Your task to perform on an android device: Go to Amazon Image 0: 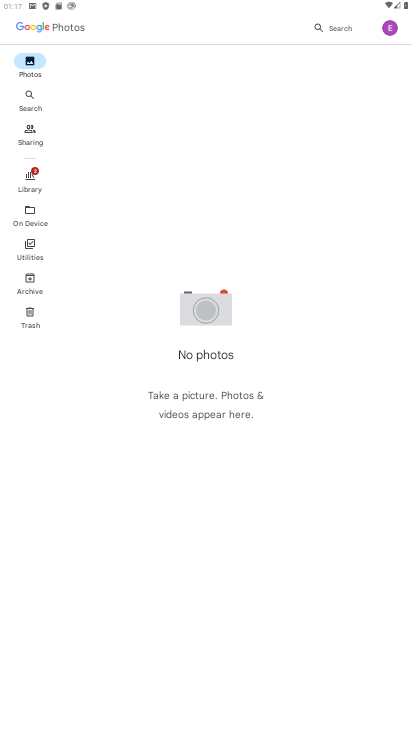
Step 0: press home button
Your task to perform on an android device: Go to Amazon Image 1: 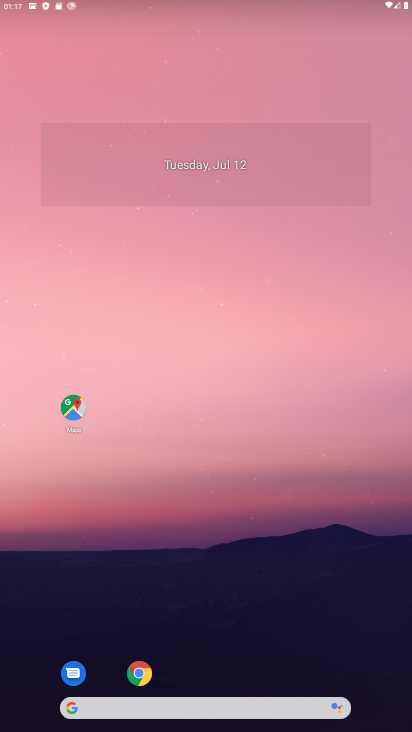
Step 1: drag from (261, 619) to (242, 9)
Your task to perform on an android device: Go to Amazon Image 2: 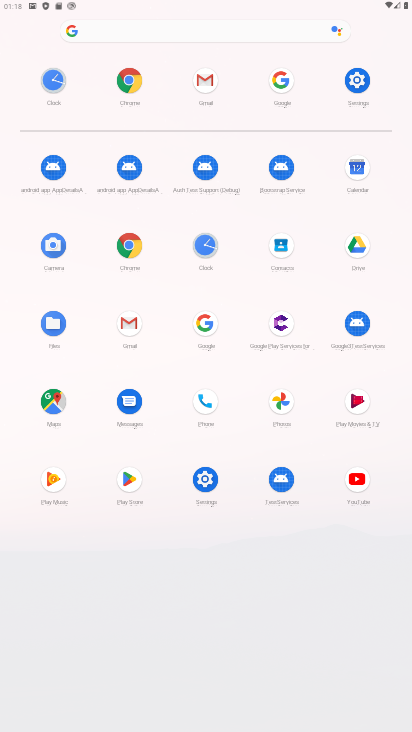
Step 2: click (280, 75)
Your task to perform on an android device: Go to Amazon Image 3: 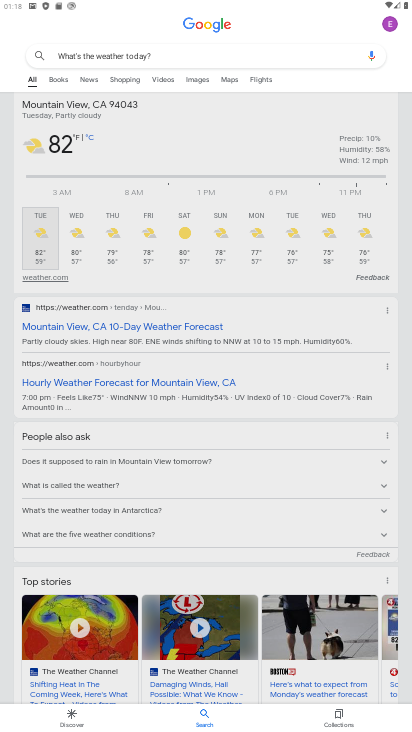
Step 3: click (176, 54)
Your task to perform on an android device: Go to Amazon Image 4: 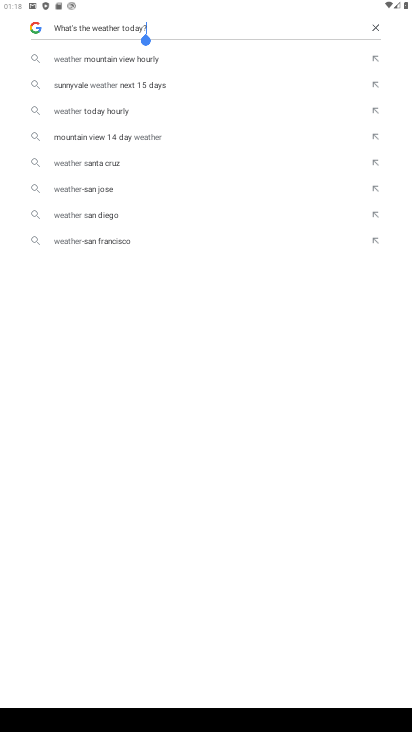
Step 4: click (374, 29)
Your task to perform on an android device: Go to Amazon Image 5: 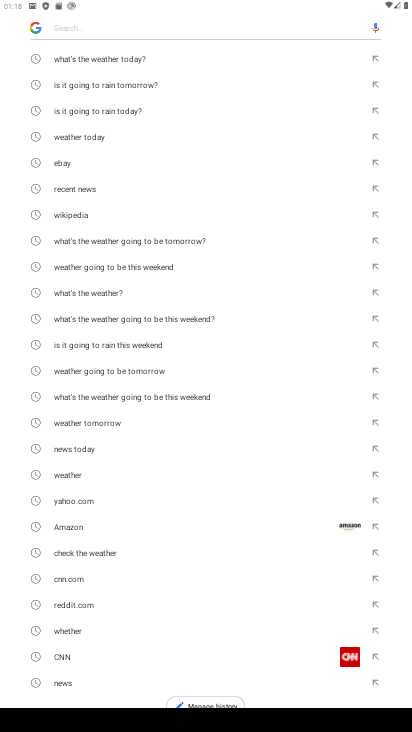
Step 5: type "Go to Amazon"
Your task to perform on an android device: Go to Amazon Image 6: 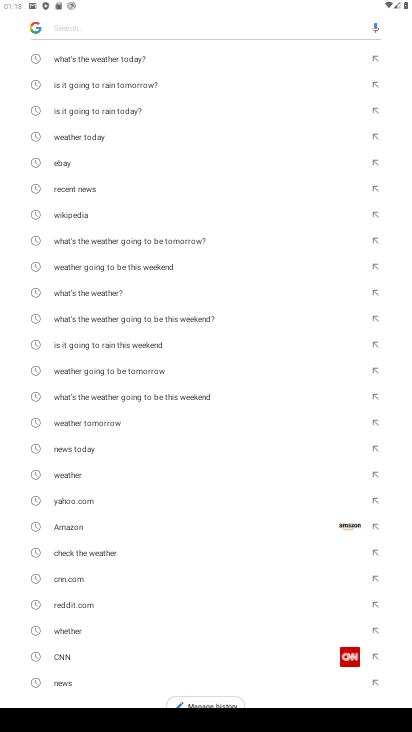
Step 6: click (84, 25)
Your task to perform on an android device: Go to Amazon Image 7: 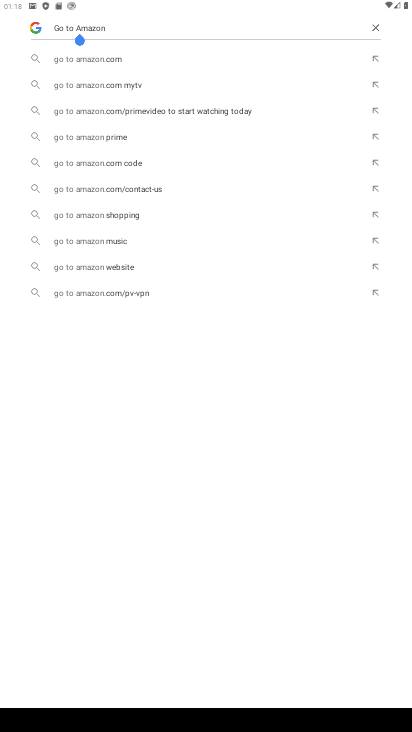
Step 7: press enter
Your task to perform on an android device: Go to Amazon Image 8: 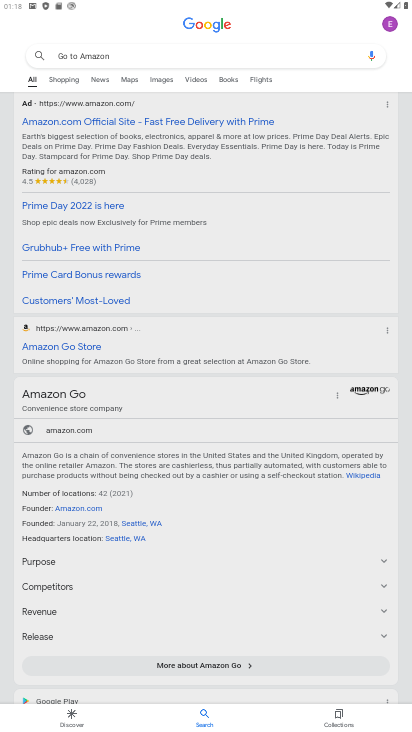
Step 8: click (65, 428)
Your task to perform on an android device: Go to Amazon Image 9: 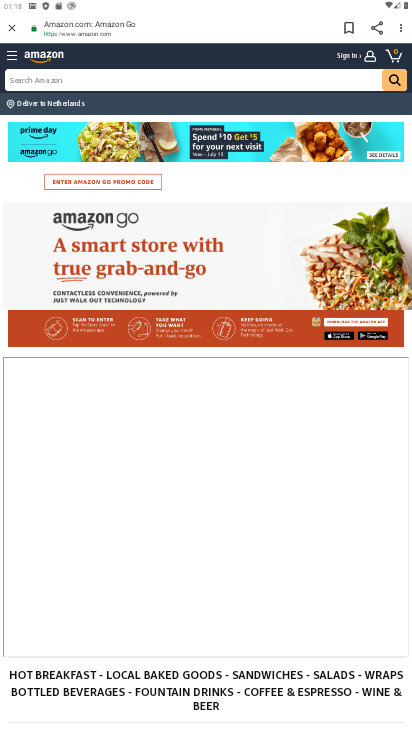
Step 9: task complete